Your task to perform on an android device: turn notification dots on Image 0: 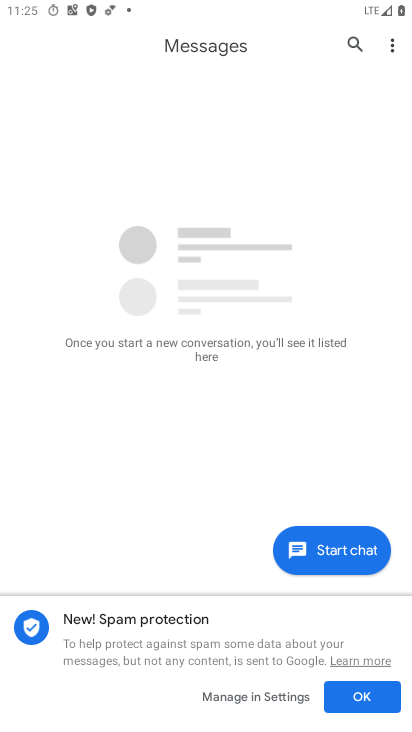
Step 0: press back button
Your task to perform on an android device: turn notification dots on Image 1: 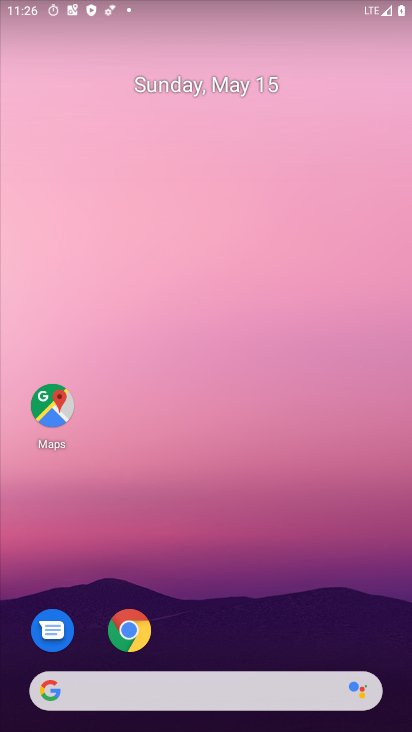
Step 1: drag from (218, 557) to (326, 58)
Your task to perform on an android device: turn notification dots on Image 2: 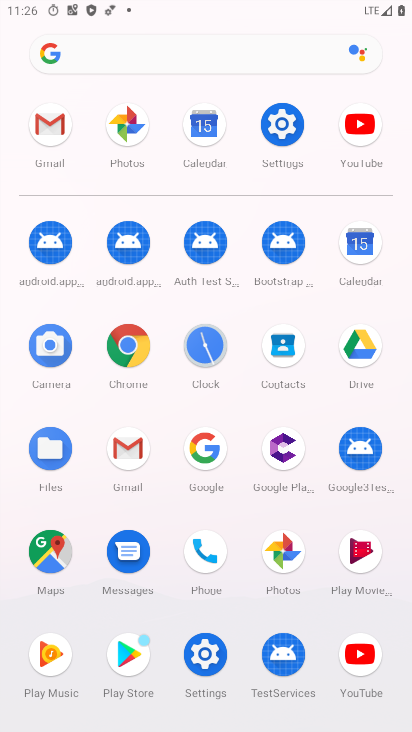
Step 2: click (279, 133)
Your task to perform on an android device: turn notification dots on Image 3: 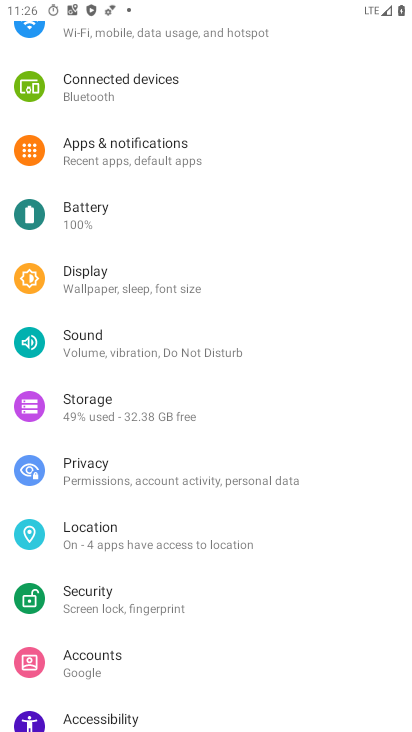
Step 3: click (169, 153)
Your task to perform on an android device: turn notification dots on Image 4: 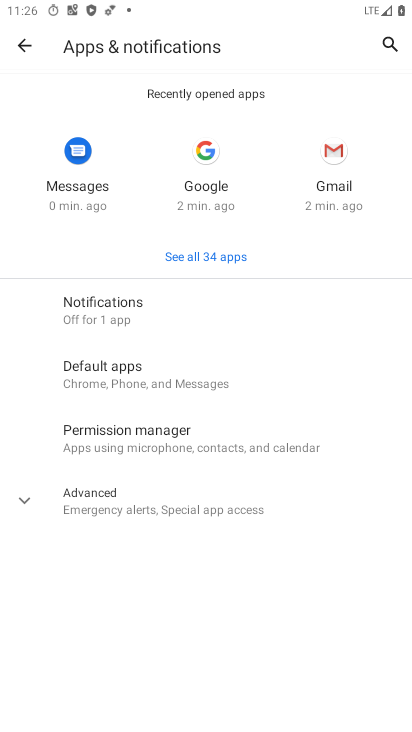
Step 4: click (123, 311)
Your task to perform on an android device: turn notification dots on Image 5: 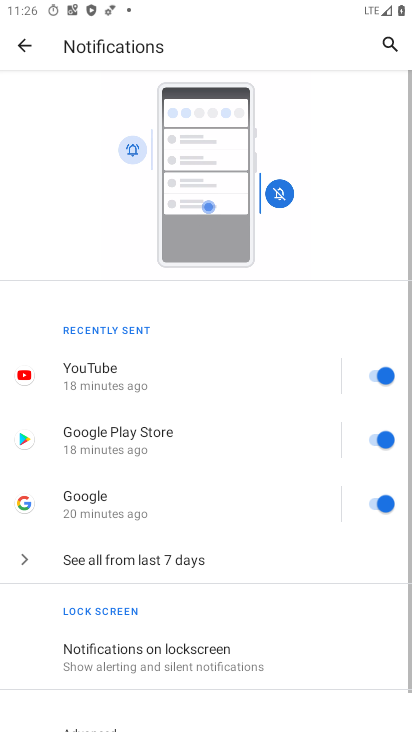
Step 5: drag from (232, 264) to (258, 153)
Your task to perform on an android device: turn notification dots on Image 6: 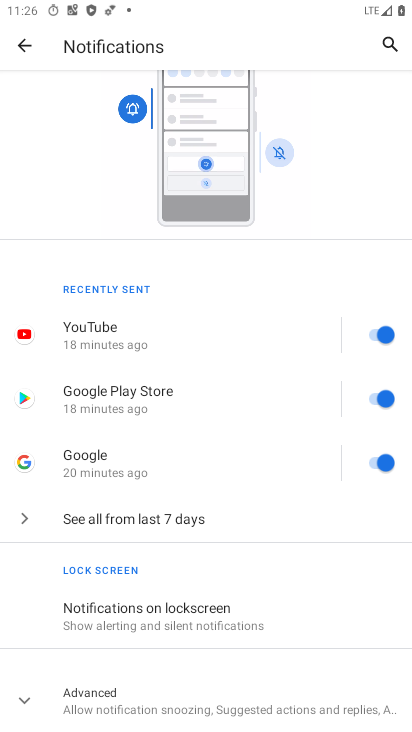
Step 6: drag from (132, 669) to (262, 202)
Your task to perform on an android device: turn notification dots on Image 7: 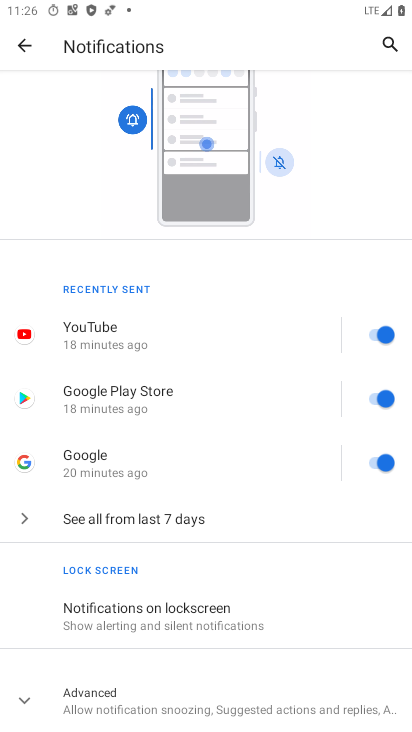
Step 7: click (143, 699)
Your task to perform on an android device: turn notification dots on Image 8: 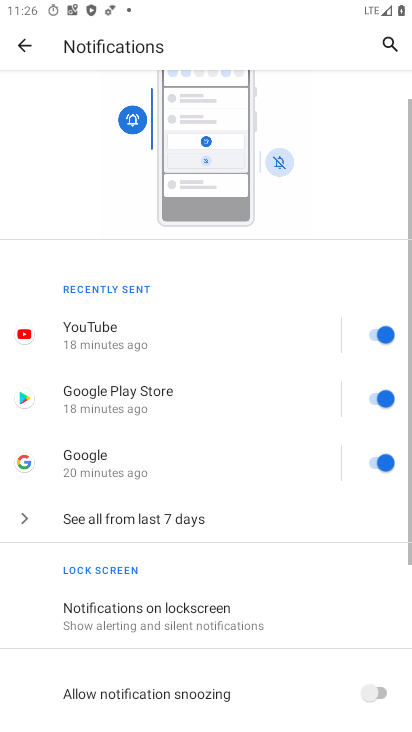
Step 8: task complete